Your task to perform on an android device: manage bookmarks in the chrome app Image 0: 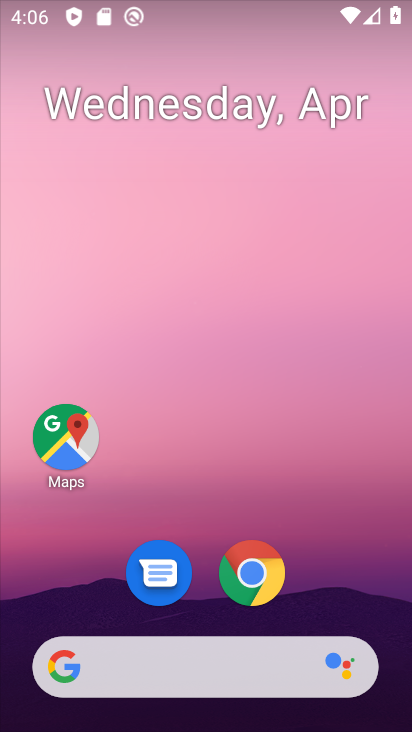
Step 0: click (264, 580)
Your task to perform on an android device: manage bookmarks in the chrome app Image 1: 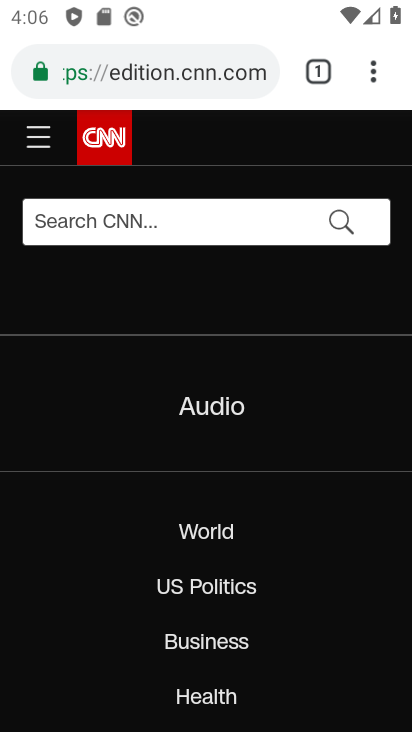
Step 1: click (376, 78)
Your task to perform on an android device: manage bookmarks in the chrome app Image 2: 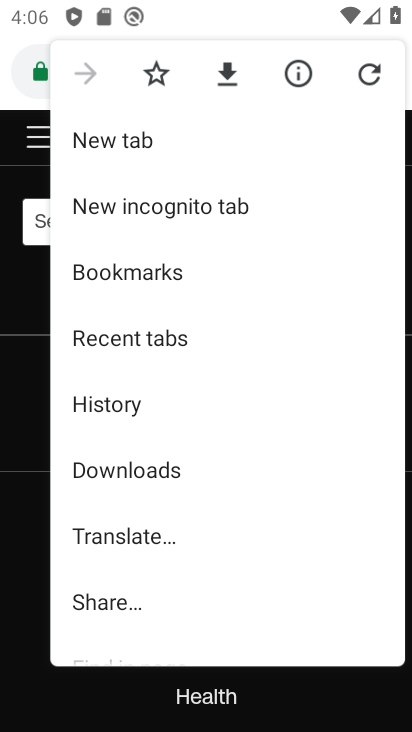
Step 2: click (144, 268)
Your task to perform on an android device: manage bookmarks in the chrome app Image 3: 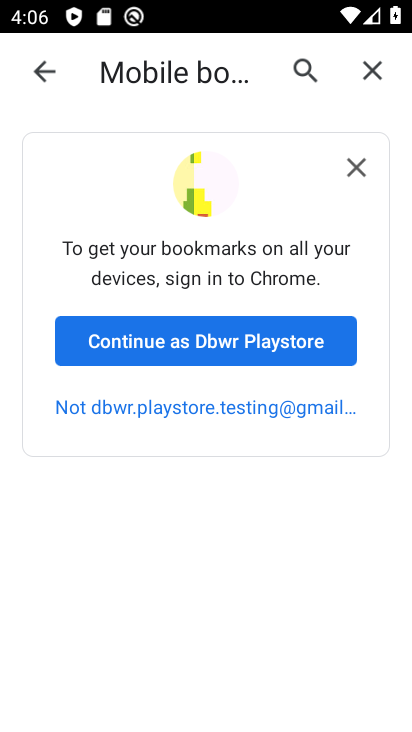
Step 3: click (165, 352)
Your task to perform on an android device: manage bookmarks in the chrome app Image 4: 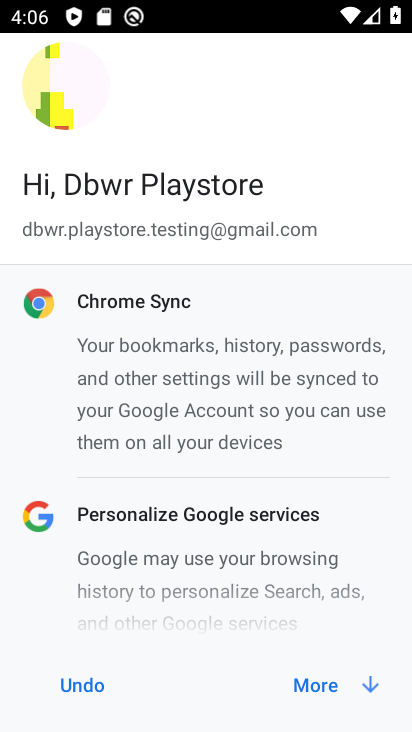
Step 4: click (308, 687)
Your task to perform on an android device: manage bookmarks in the chrome app Image 5: 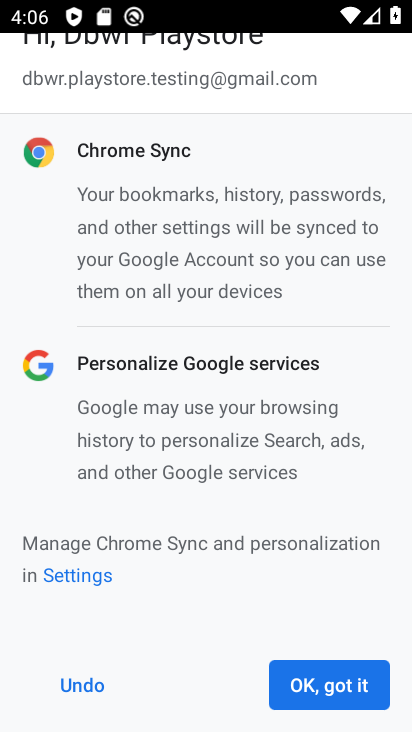
Step 5: click (308, 687)
Your task to perform on an android device: manage bookmarks in the chrome app Image 6: 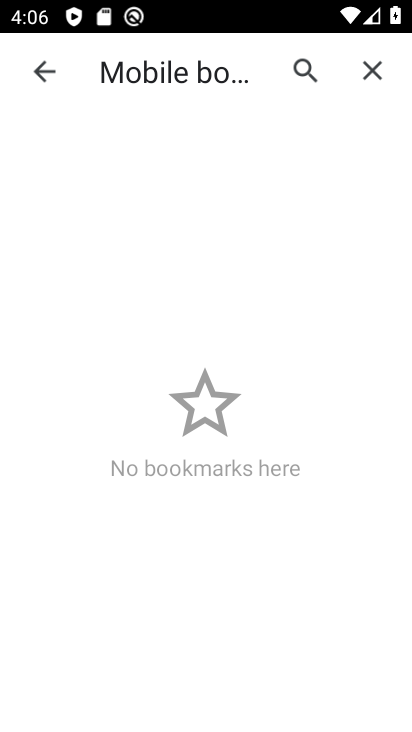
Step 6: task complete